Your task to perform on an android device: Show me the best rated 42 inch TV on Walmart. Image 0: 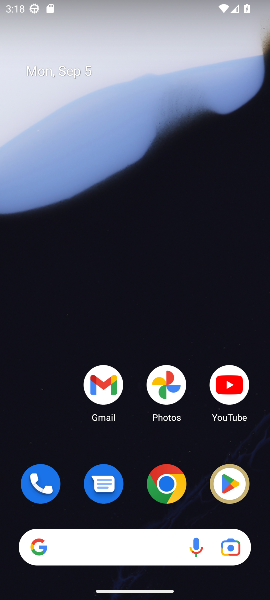
Step 0: click (170, 486)
Your task to perform on an android device: Show me the best rated 42 inch TV on Walmart. Image 1: 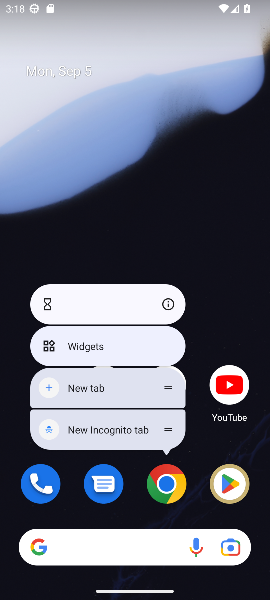
Step 1: click (165, 488)
Your task to perform on an android device: Show me the best rated 42 inch TV on Walmart. Image 2: 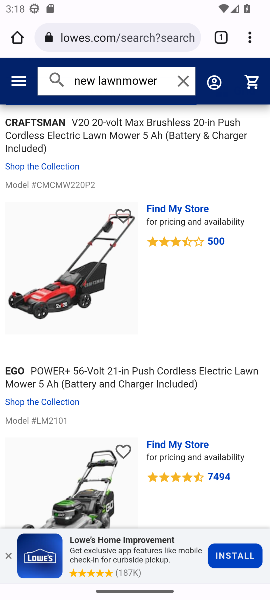
Step 2: click (161, 40)
Your task to perform on an android device: Show me the best rated 42 inch TV on Walmart. Image 3: 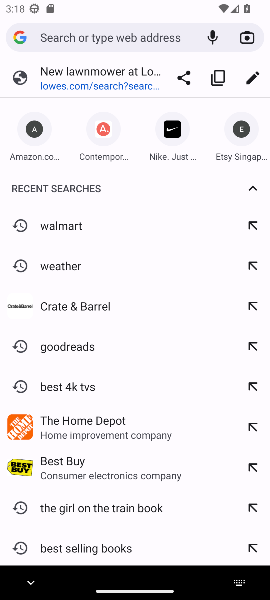
Step 3: click (39, 224)
Your task to perform on an android device: Show me the best rated 42 inch TV on Walmart. Image 4: 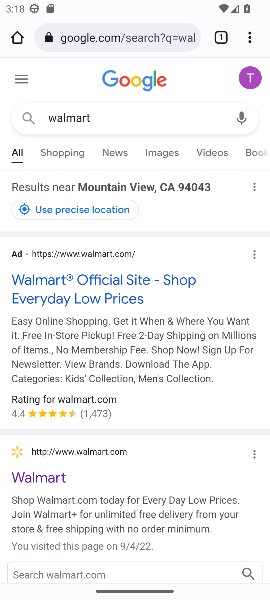
Step 4: click (42, 478)
Your task to perform on an android device: Show me the best rated 42 inch TV on Walmart. Image 5: 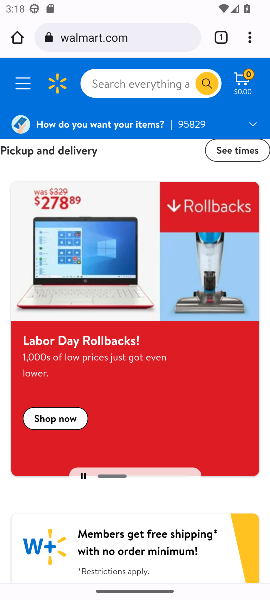
Step 5: click (141, 85)
Your task to perform on an android device: Show me the best rated 42 inch TV on Walmart. Image 6: 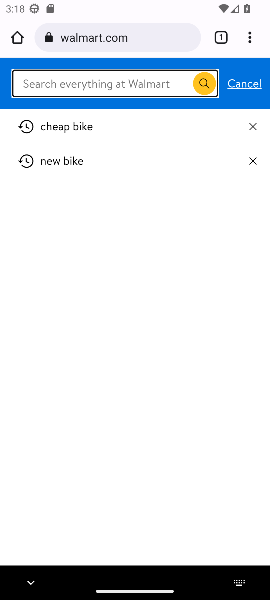
Step 6: type " 42 inch TV"
Your task to perform on an android device: Show me the best rated 42 inch TV on Walmart. Image 7: 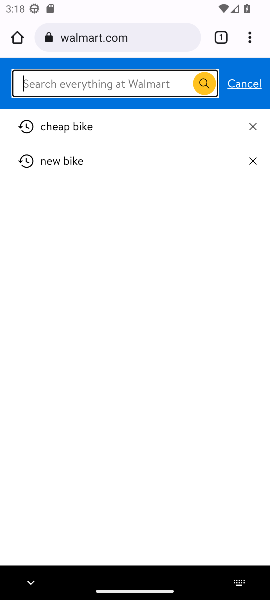
Step 7: press enter
Your task to perform on an android device: Show me the best rated 42 inch TV on Walmart. Image 8: 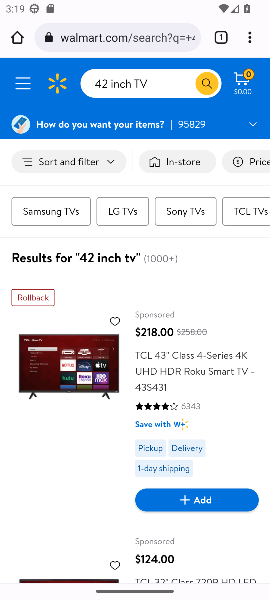
Step 8: task complete